Your task to perform on an android device: set default search engine in the chrome app Image 0: 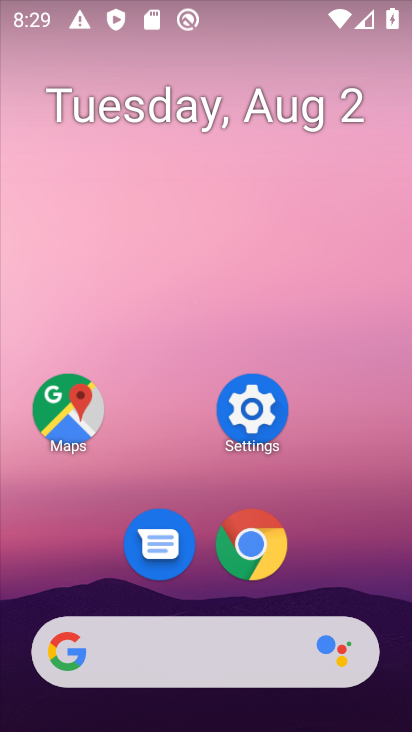
Step 0: click (267, 416)
Your task to perform on an android device: set default search engine in the chrome app Image 1: 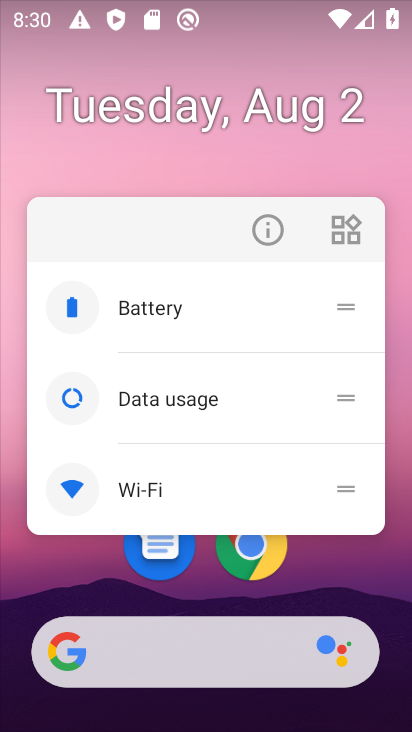
Step 1: click (370, 571)
Your task to perform on an android device: set default search engine in the chrome app Image 2: 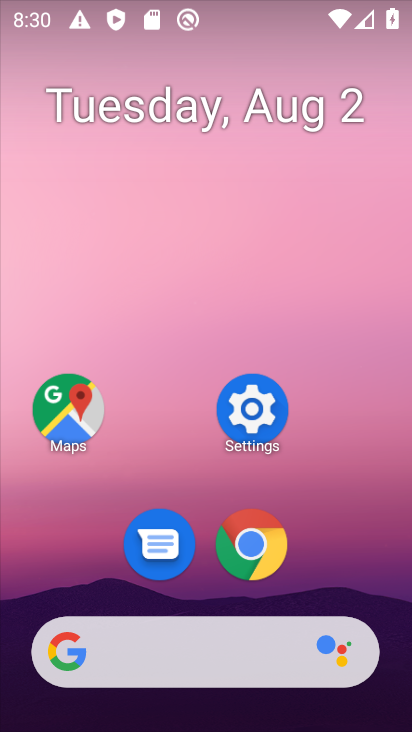
Step 2: click (249, 557)
Your task to perform on an android device: set default search engine in the chrome app Image 3: 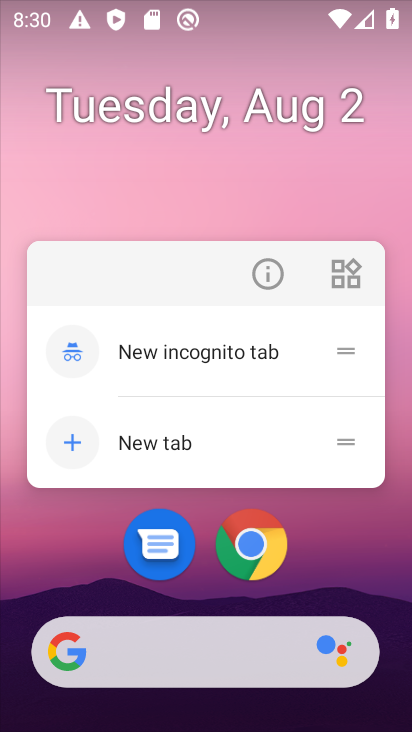
Step 3: click (249, 553)
Your task to perform on an android device: set default search engine in the chrome app Image 4: 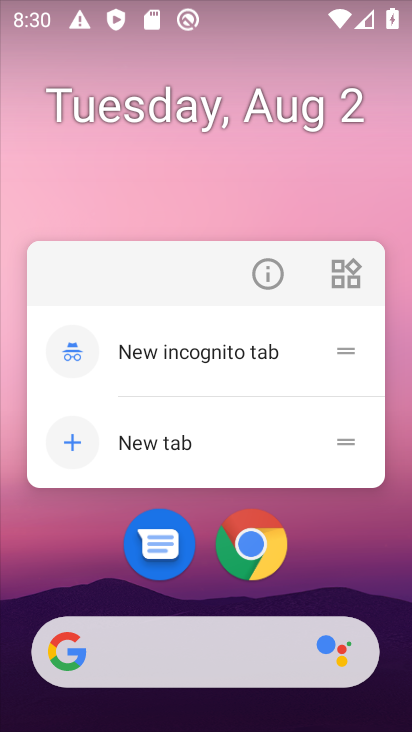
Step 4: click (256, 547)
Your task to perform on an android device: set default search engine in the chrome app Image 5: 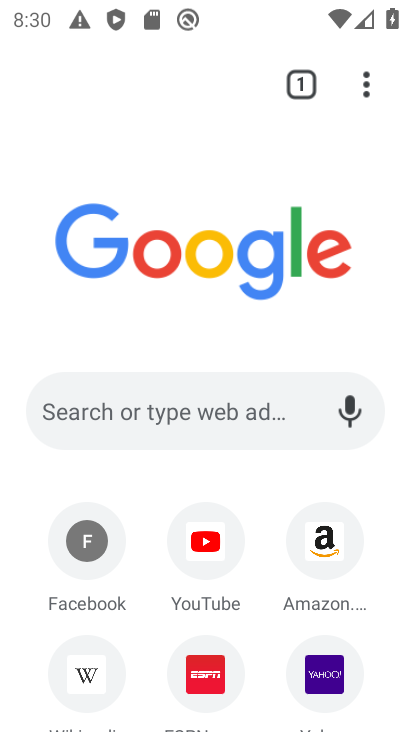
Step 5: drag from (366, 94) to (192, 594)
Your task to perform on an android device: set default search engine in the chrome app Image 6: 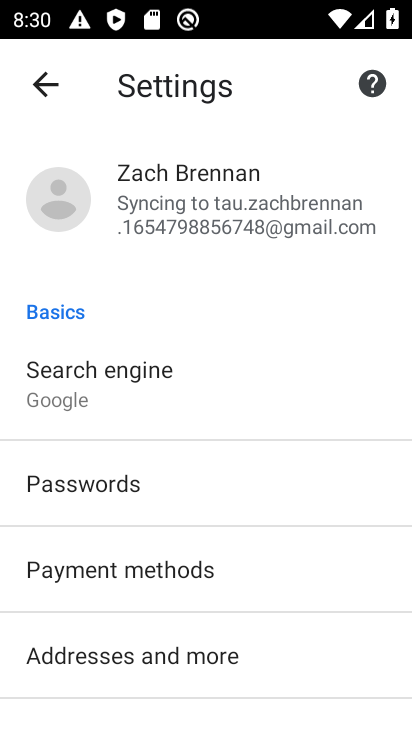
Step 6: click (129, 377)
Your task to perform on an android device: set default search engine in the chrome app Image 7: 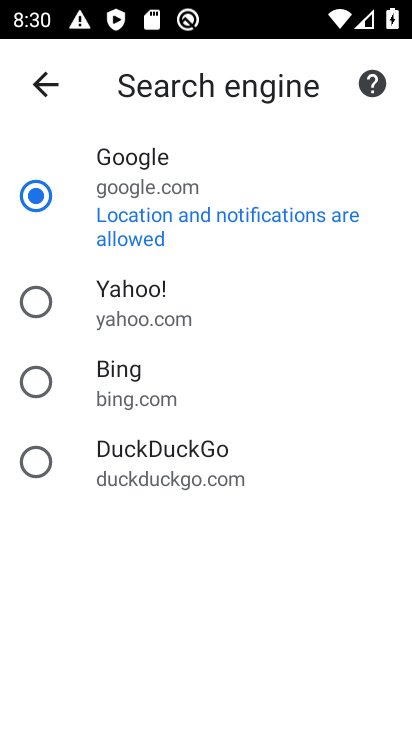
Step 7: click (28, 305)
Your task to perform on an android device: set default search engine in the chrome app Image 8: 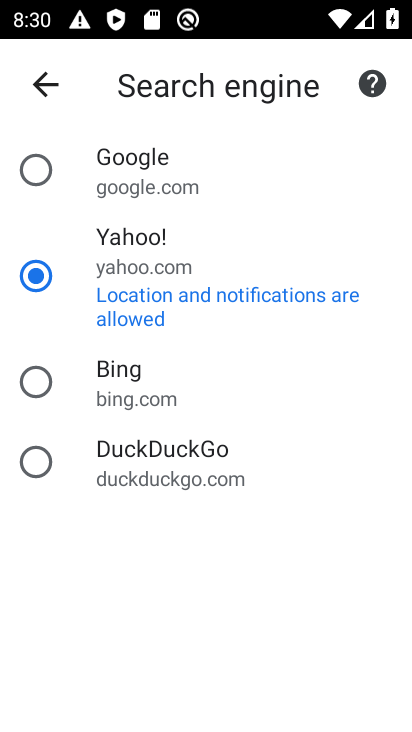
Step 8: task complete